Your task to perform on an android device: What is the recent news? Image 0: 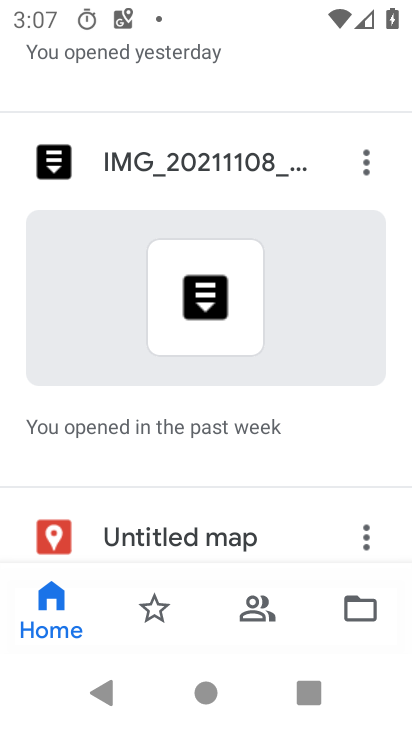
Step 0: drag from (192, 512) to (209, 188)
Your task to perform on an android device: What is the recent news? Image 1: 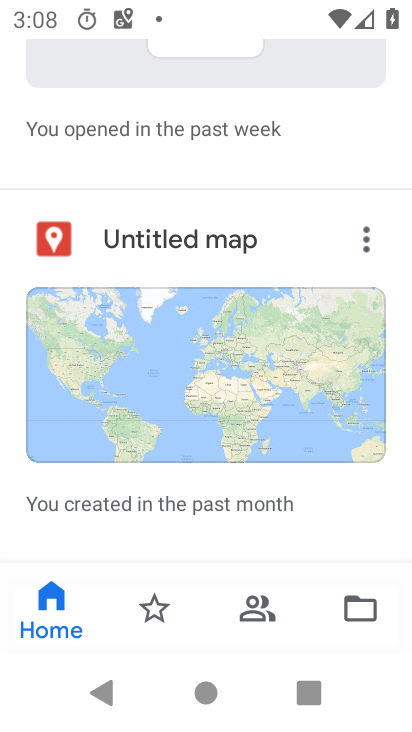
Step 1: drag from (197, 533) to (247, 173)
Your task to perform on an android device: What is the recent news? Image 2: 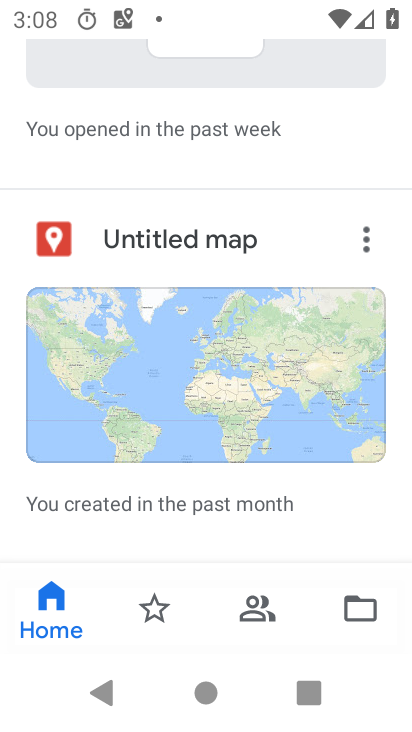
Step 2: drag from (251, 143) to (249, 616)
Your task to perform on an android device: What is the recent news? Image 3: 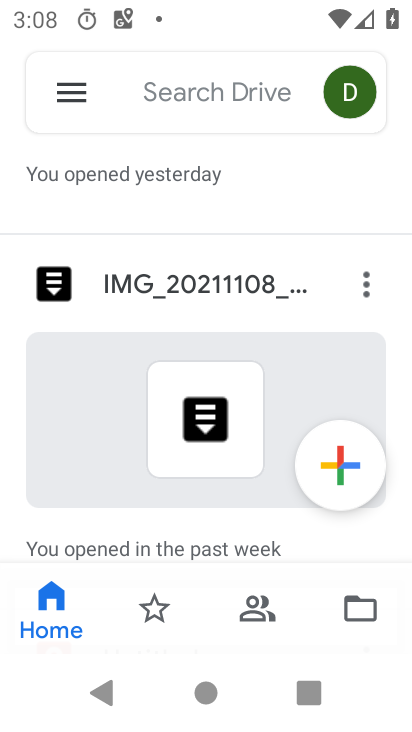
Step 3: drag from (267, 222) to (318, 542)
Your task to perform on an android device: What is the recent news? Image 4: 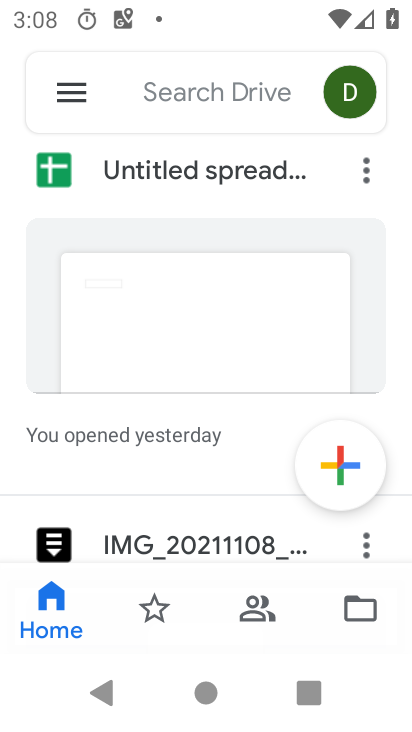
Step 4: click (62, 99)
Your task to perform on an android device: What is the recent news? Image 5: 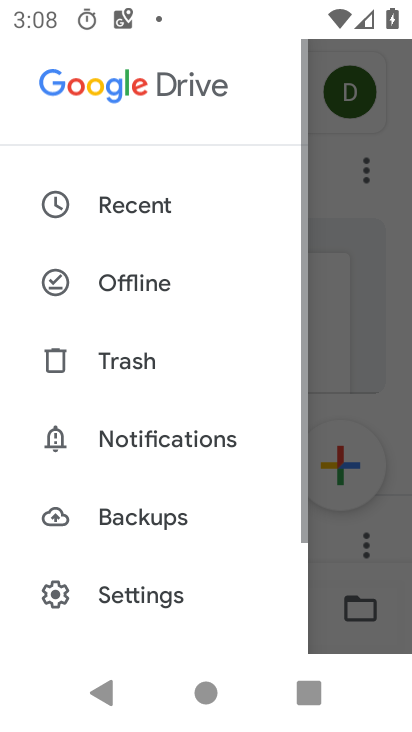
Step 5: press home button
Your task to perform on an android device: What is the recent news? Image 6: 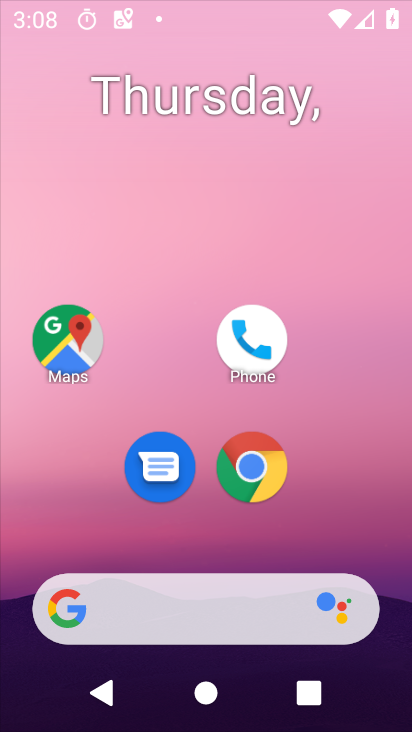
Step 6: drag from (220, 569) to (221, 326)
Your task to perform on an android device: What is the recent news? Image 7: 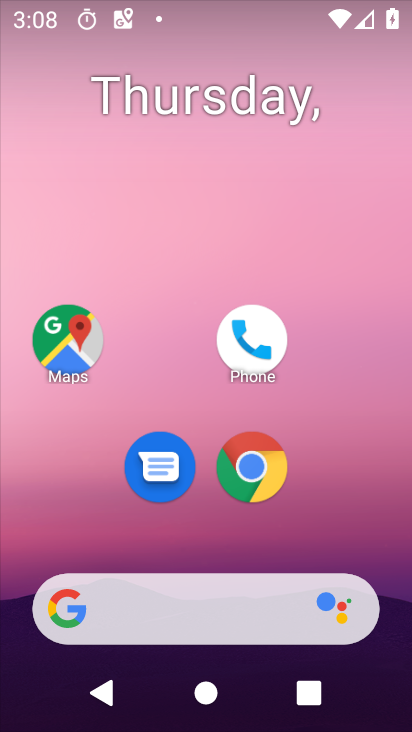
Step 7: drag from (223, 506) to (224, 156)
Your task to perform on an android device: What is the recent news? Image 8: 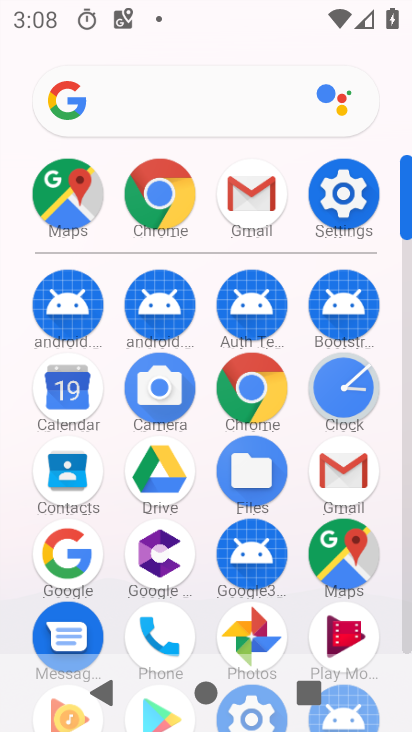
Step 8: click (219, 85)
Your task to perform on an android device: What is the recent news? Image 9: 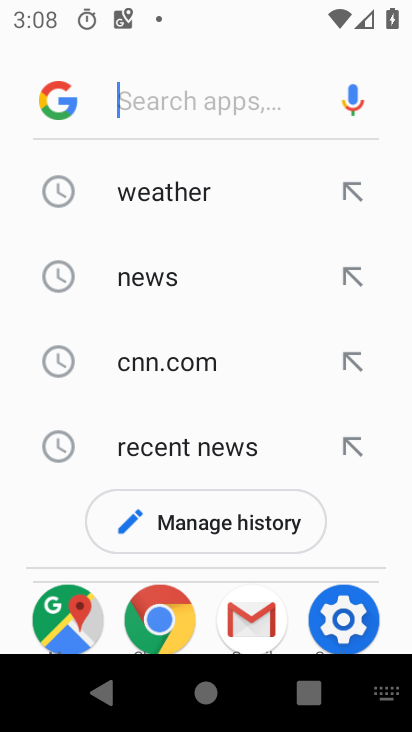
Step 9: click (199, 440)
Your task to perform on an android device: What is the recent news? Image 10: 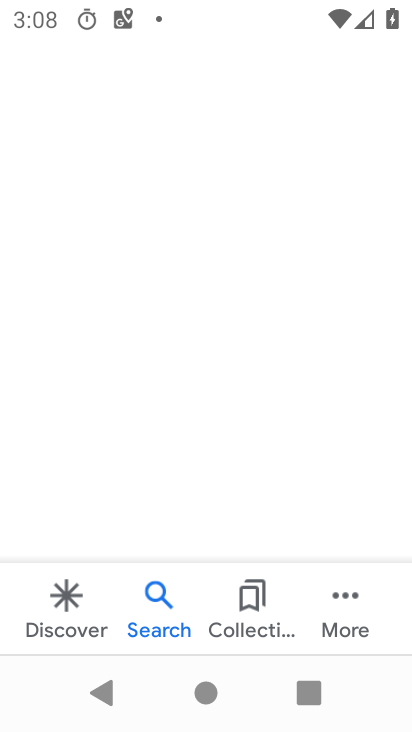
Step 10: task complete